Your task to perform on an android device: Show the shopping cart on newegg.com. Search for logitech g502 on newegg.com, select the first entry, and add it to the cart. Image 0: 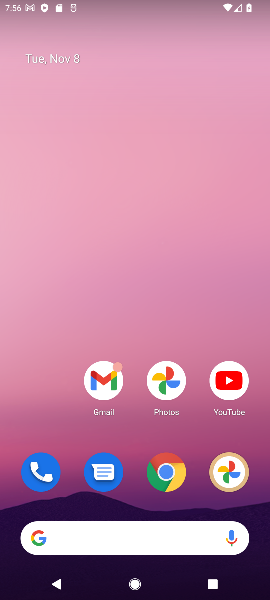
Step 0: click (169, 475)
Your task to perform on an android device: Show the shopping cart on newegg.com. Search for logitech g502 on newegg.com, select the first entry, and add it to the cart. Image 1: 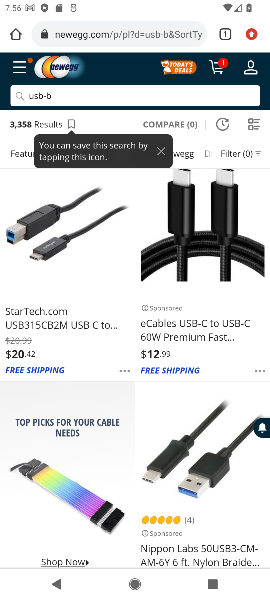
Step 1: click (220, 65)
Your task to perform on an android device: Show the shopping cart on newegg.com. Search for logitech g502 on newegg.com, select the first entry, and add it to the cart. Image 2: 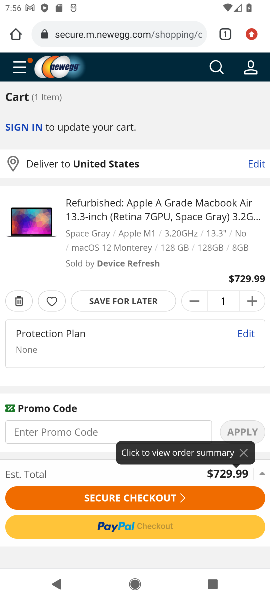
Step 2: click (20, 297)
Your task to perform on an android device: Show the shopping cart on newegg.com. Search for logitech g502 on newegg.com, select the first entry, and add it to the cart. Image 3: 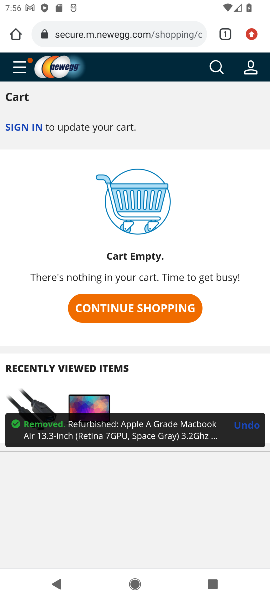
Step 3: click (219, 65)
Your task to perform on an android device: Show the shopping cart on newegg.com. Search for logitech g502 on newegg.com, select the first entry, and add it to the cart. Image 4: 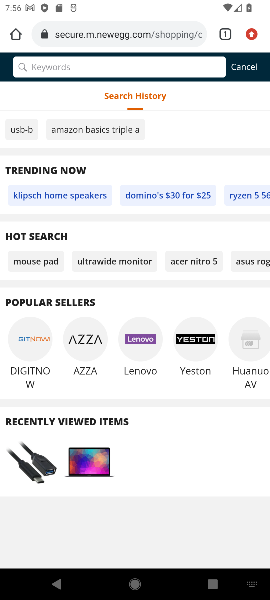
Step 4: click (111, 66)
Your task to perform on an android device: Show the shopping cart on newegg.com. Search for logitech g502 on newegg.com, select the first entry, and add it to the cart. Image 5: 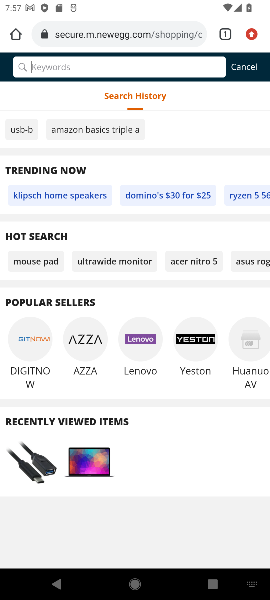
Step 5: type "logitech g502"
Your task to perform on an android device: Show the shopping cart on newegg.com. Search for logitech g502 on newegg.com, select the first entry, and add it to the cart. Image 6: 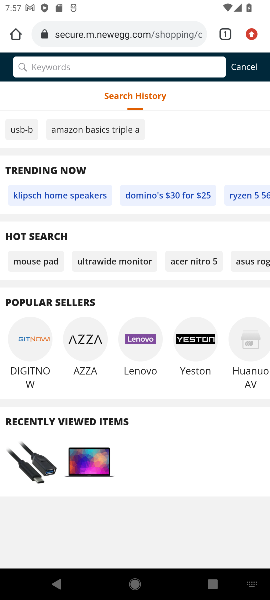
Step 6: press enter
Your task to perform on an android device: Show the shopping cart on newegg.com. Search for logitech g502 on newegg.com, select the first entry, and add it to the cart. Image 7: 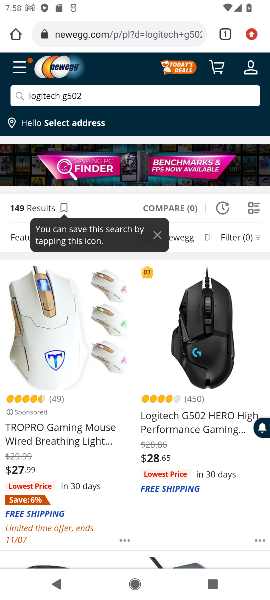
Step 7: drag from (96, 497) to (180, 274)
Your task to perform on an android device: Show the shopping cart on newegg.com. Search for logitech g502 on newegg.com, select the first entry, and add it to the cart. Image 8: 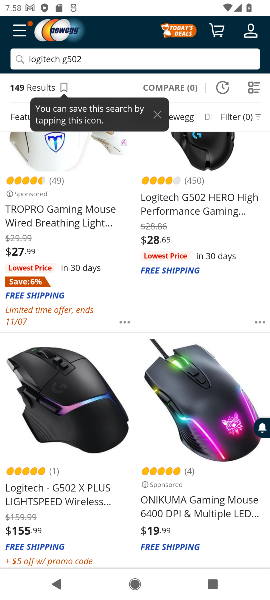
Step 8: click (195, 197)
Your task to perform on an android device: Show the shopping cart on newegg.com. Search for logitech g502 on newegg.com, select the first entry, and add it to the cart. Image 9: 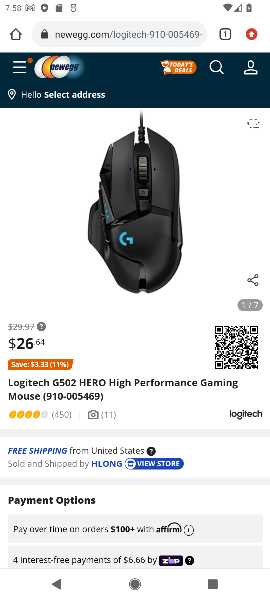
Step 9: drag from (86, 471) to (238, 179)
Your task to perform on an android device: Show the shopping cart on newegg.com. Search for logitech g502 on newegg.com, select the first entry, and add it to the cart. Image 10: 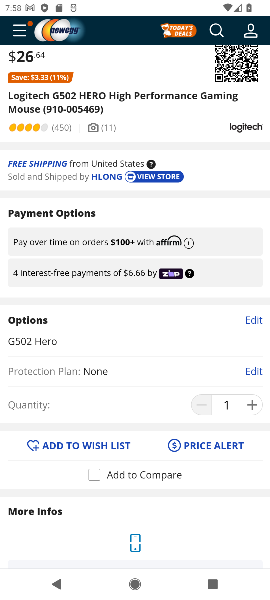
Step 10: click (132, 550)
Your task to perform on an android device: Show the shopping cart on newegg.com. Search for logitech g502 on newegg.com, select the first entry, and add it to the cart. Image 11: 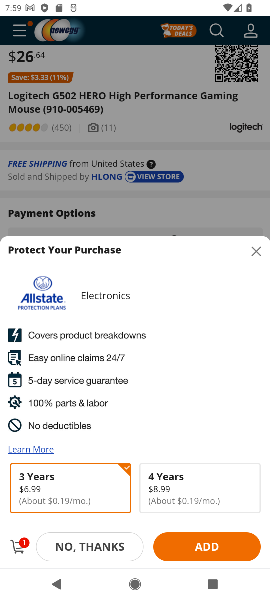
Step 11: click (15, 545)
Your task to perform on an android device: Show the shopping cart on newegg.com. Search for logitech g502 on newegg.com, select the first entry, and add it to the cart. Image 12: 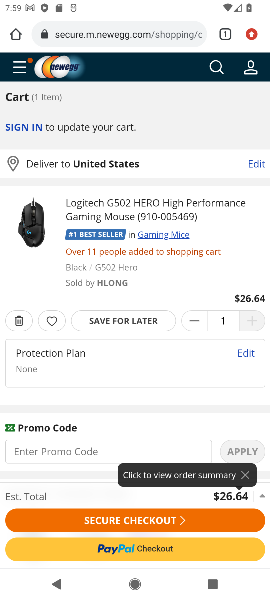
Step 12: task complete